Your task to perform on an android device: Open the calendar and show me this week's events? Image 0: 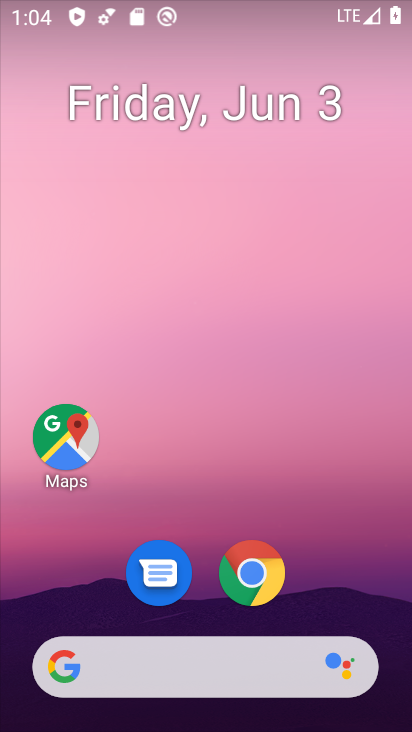
Step 0: drag from (359, 610) to (384, 302)
Your task to perform on an android device: Open the calendar and show me this week's events? Image 1: 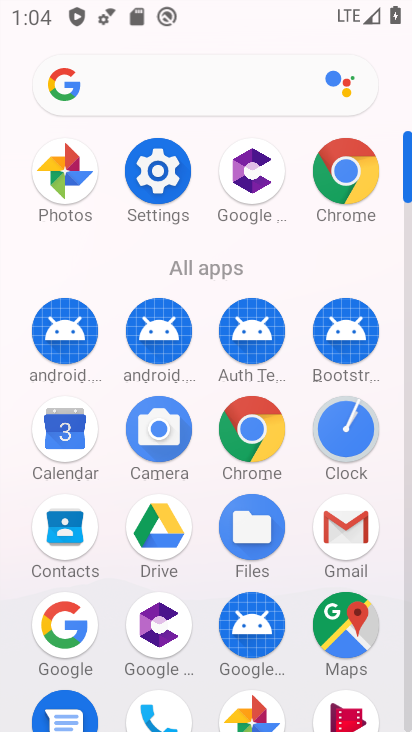
Step 1: drag from (296, 573) to (301, 336)
Your task to perform on an android device: Open the calendar and show me this week's events? Image 2: 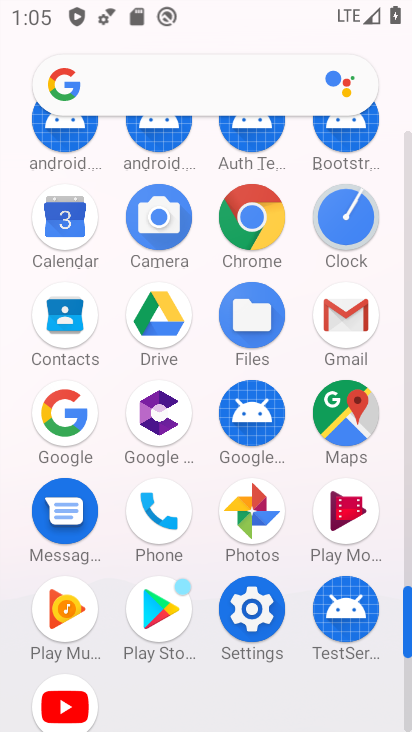
Step 2: click (61, 226)
Your task to perform on an android device: Open the calendar and show me this week's events? Image 3: 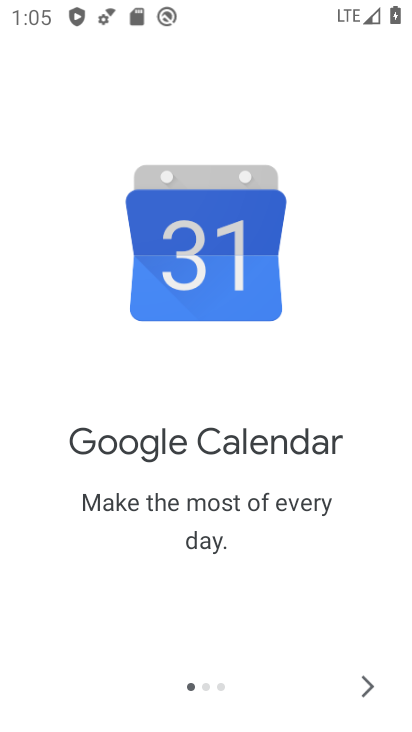
Step 3: click (352, 694)
Your task to perform on an android device: Open the calendar and show me this week's events? Image 4: 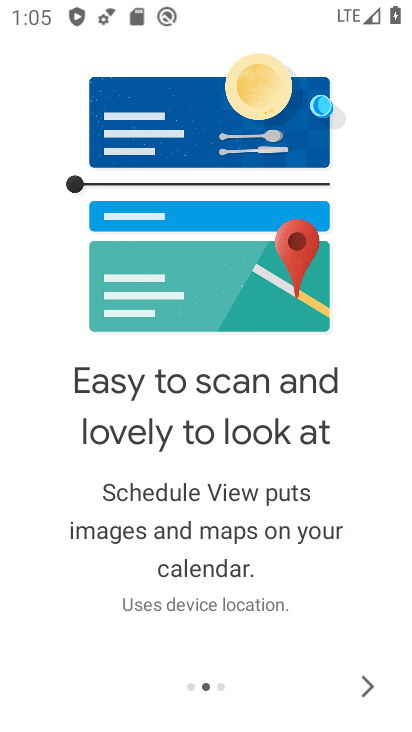
Step 4: click (368, 694)
Your task to perform on an android device: Open the calendar and show me this week's events? Image 5: 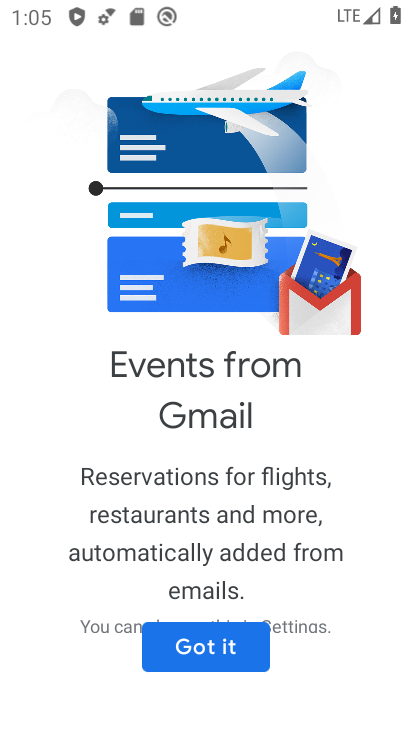
Step 5: click (250, 660)
Your task to perform on an android device: Open the calendar and show me this week's events? Image 6: 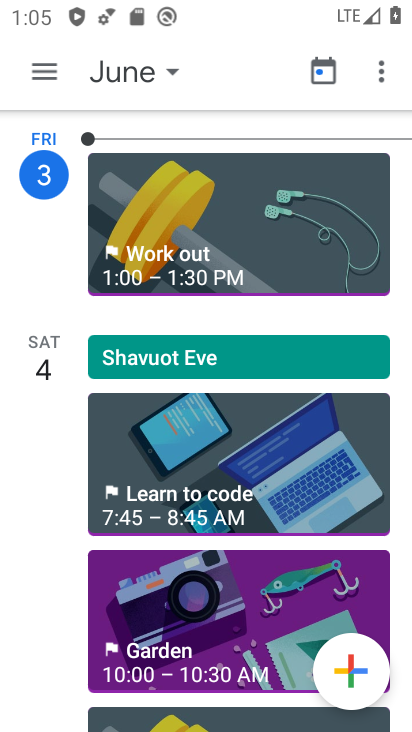
Step 6: drag from (263, 531) to (264, 489)
Your task to perform on an android device: Open the calendar and show me this week's events? Image 7: 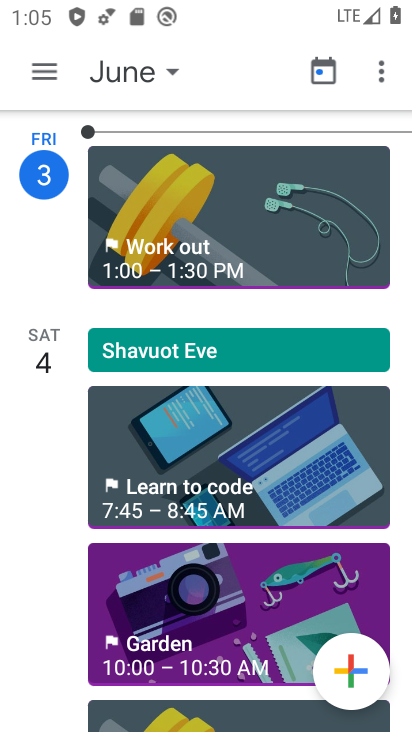
Step 7: drag from (241, 242) to (206, 452)
Your task to perform on an android device: Open the calendar and show me this week's events? Image 8: 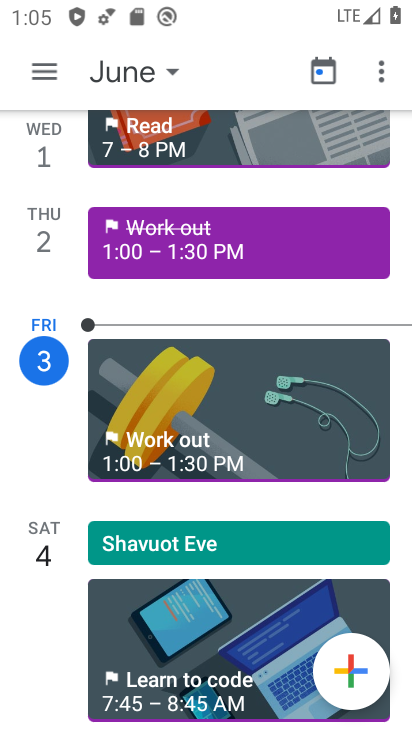
Step 8: click (229, 402)
Your task to perform on an android device: Open the calendar and show me this week's events? Image 9: 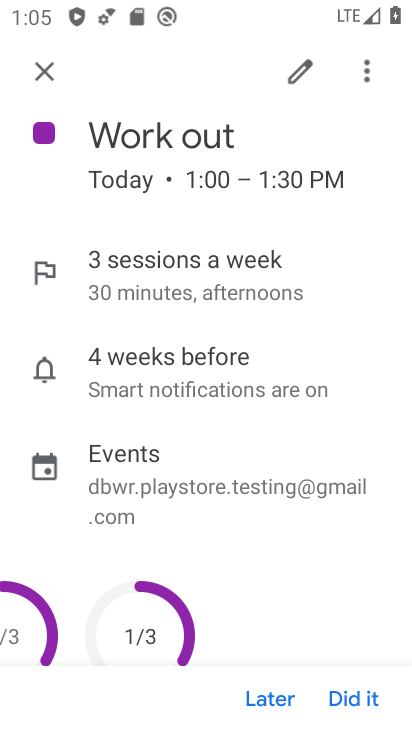
Step 9: task complete